Your task to perform on an android device: change alarm snooze length Image 0: 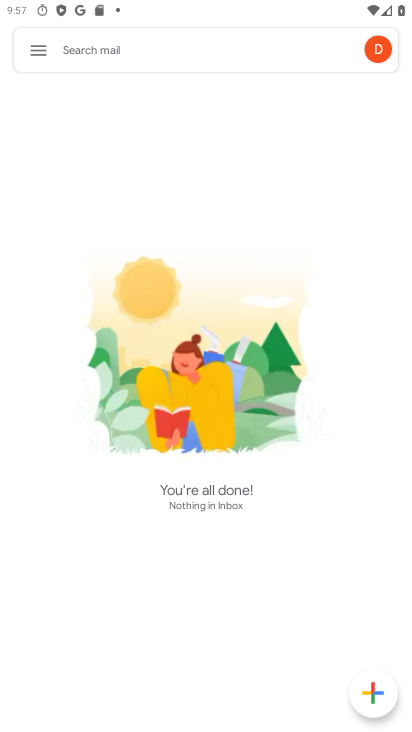
Step 0: press home button
Your task to perform on an android device: change alarm snooze length Image 1: 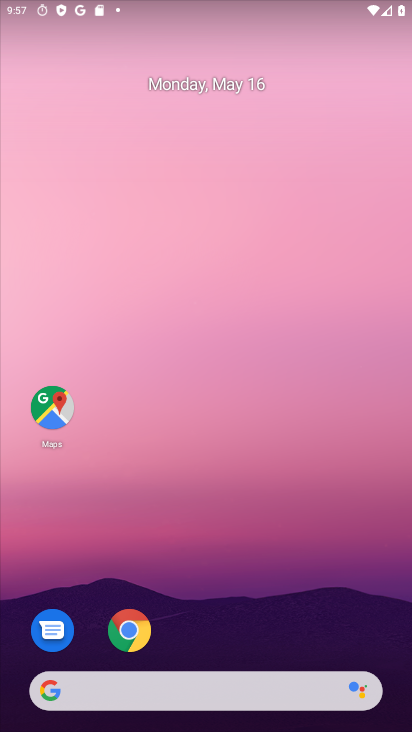
Step 1: drag from (237, 625) to (263, 8)
Your task to perform on an android device: change alarm snooze length Image 2: 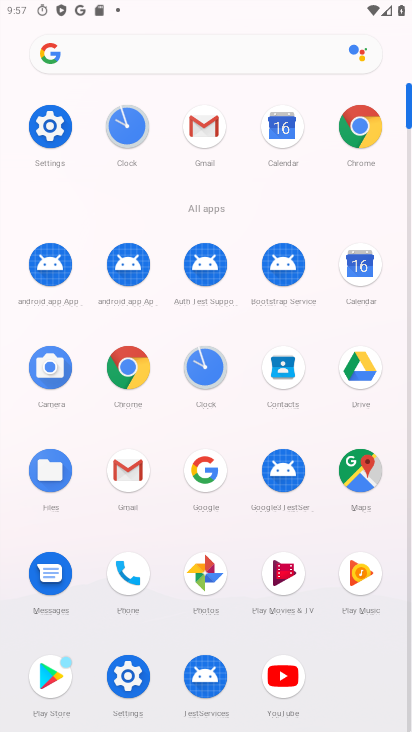
Step 2: click (204, 364)
Your task to perform on an android device: change alarm snooze length Image 3: 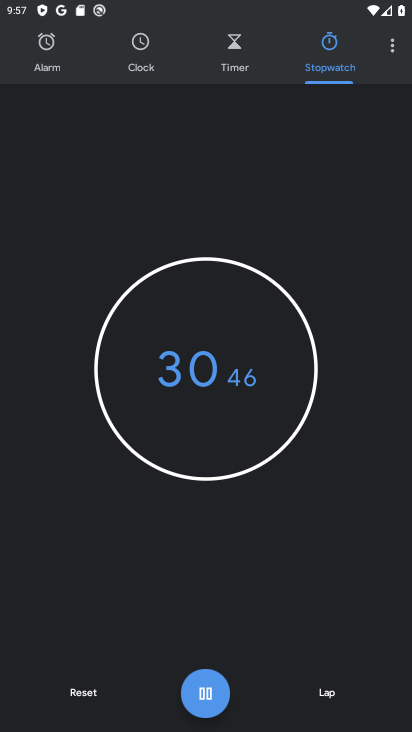
Step 3: click (390, 52)
Your task to perform on an android device: change alarm snooze length Image 4: 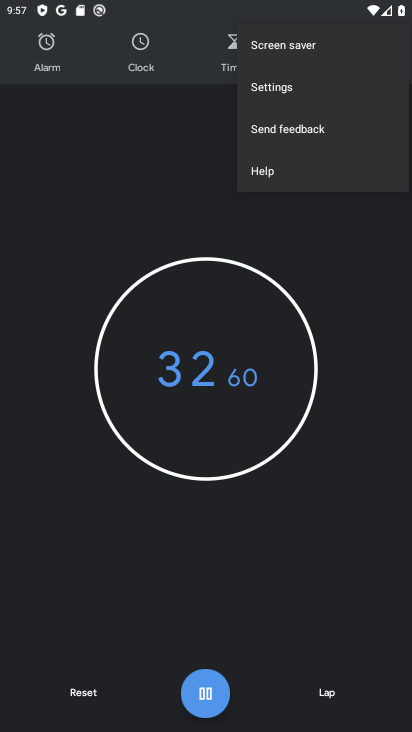
Step 4: click (270, 85)
Your task to perform on an android device: change alarm snooze length Image 5: 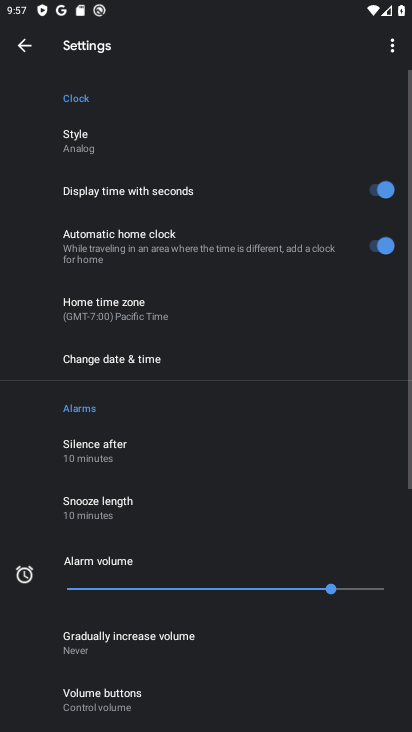
Step 5: drag from (166, 421) to (197, 207)
Your task to perform on an android device: change alarm snooze length Image 6: 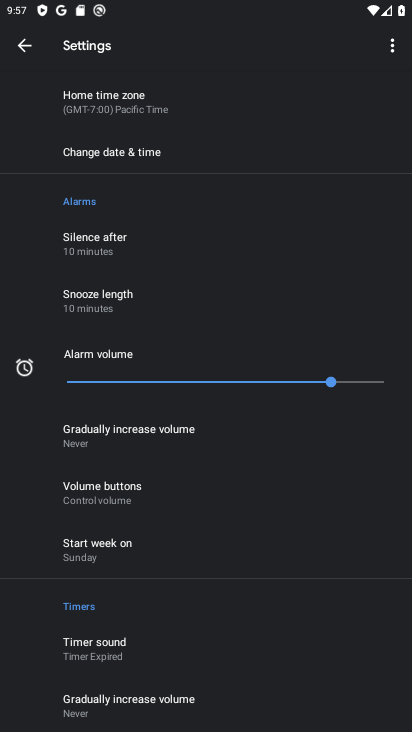
Step 6: click (140, 300)
Your task to perform on an android device: change alarm snooze length Image 7: 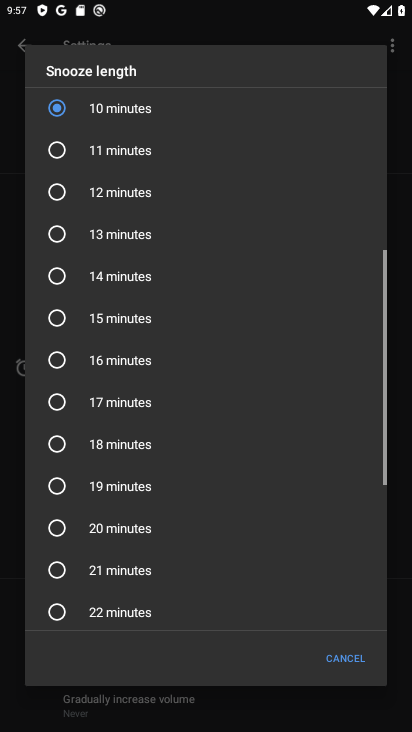
Step 7: click (99, 327)
Your task to perform on an android device: change alarm snooze length Image 8: 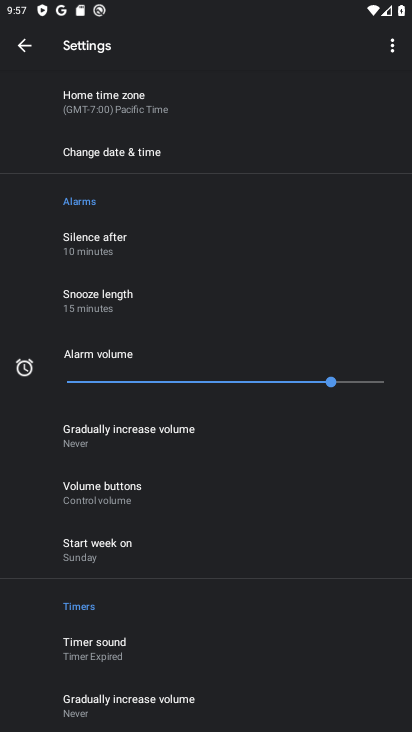
Step 8: task complete